Your task to perform on an android device: Go to Wikipedia Image 0: 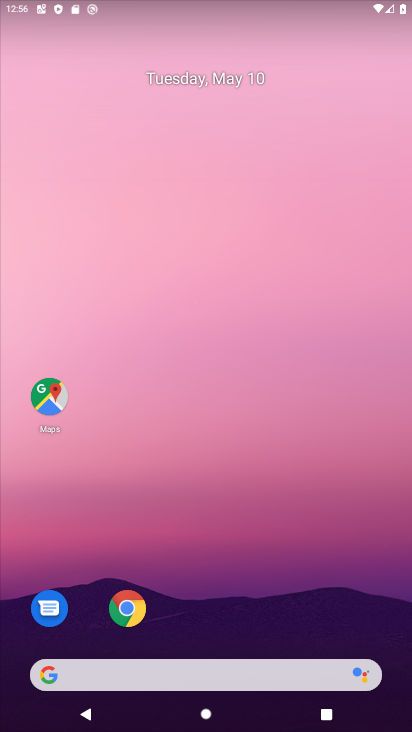
Step 0: drag from (269, 599) to (268, 185)
Your task to perform on an android device: Go to Wikipedia Image 1: 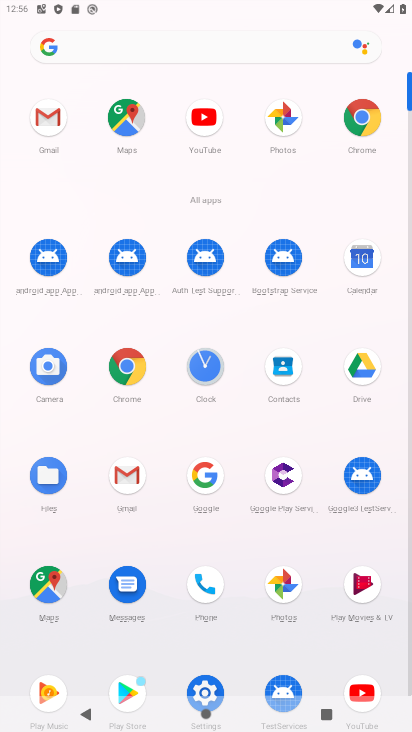
Step 1: click (140, 371)
Your task to perform on an android device: Go to Wikipedia Image 2: 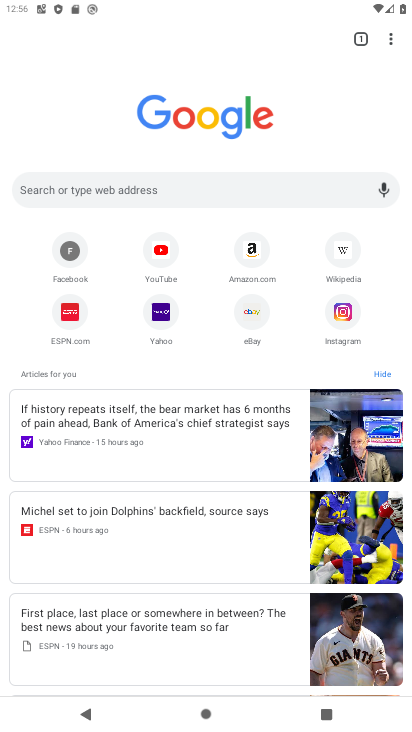
Step 2: click (186, 196)
Your task to perform on an android device: Go to Wikipedia Image 3: 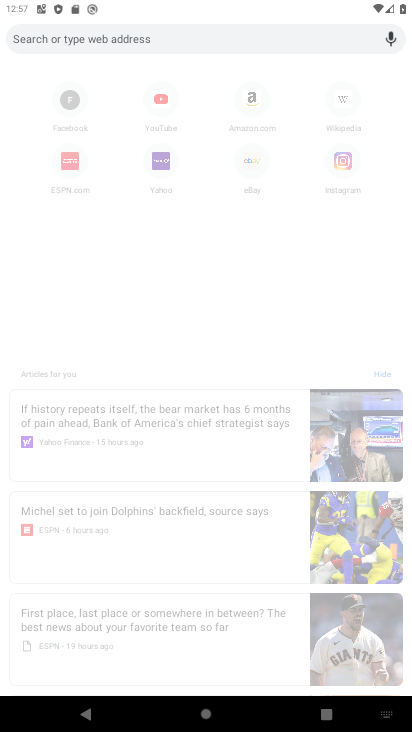
Step 3: type "wikipedia"
Your task to perform on an android device: Go to Wikipedia Image 4: 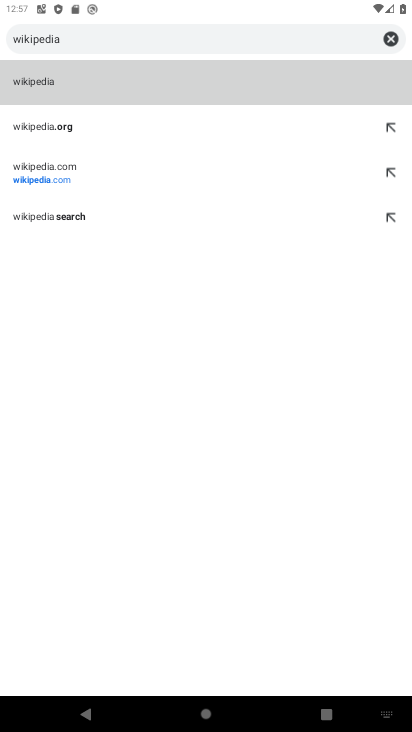
Step 4: click (27, 75)
Your task to perform on an android device: Go to Wikipedia Image 5: 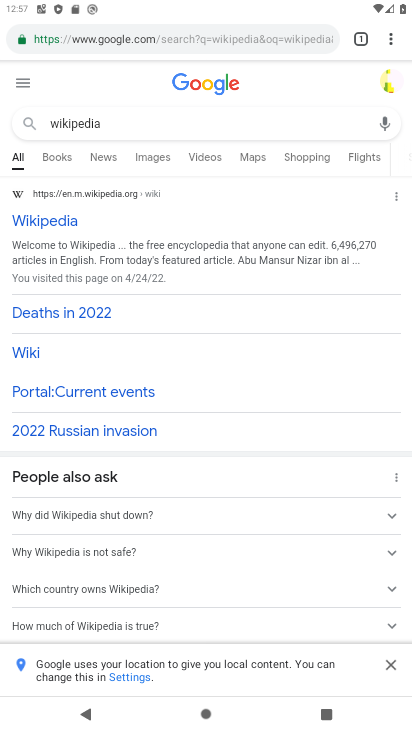
Step 5: click (76, 224)
Your task to perform on an android device: Go to Wikipedia Image 6: 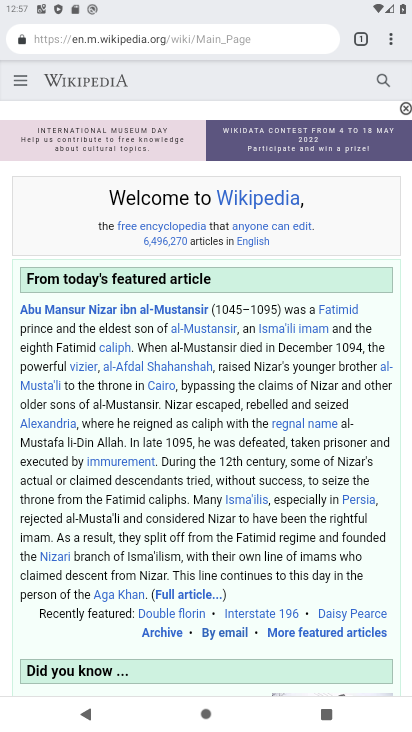
Step 6: task complete